Your task to perform on an android device: delete the emails in spam in the gmail app Image 0: 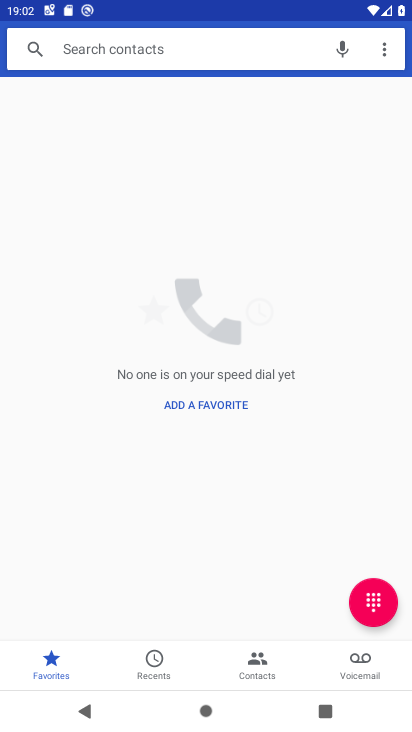
Step 0: press home button
Your task to perform on an android device: delete the emails in spam in the gmail app Image 1: 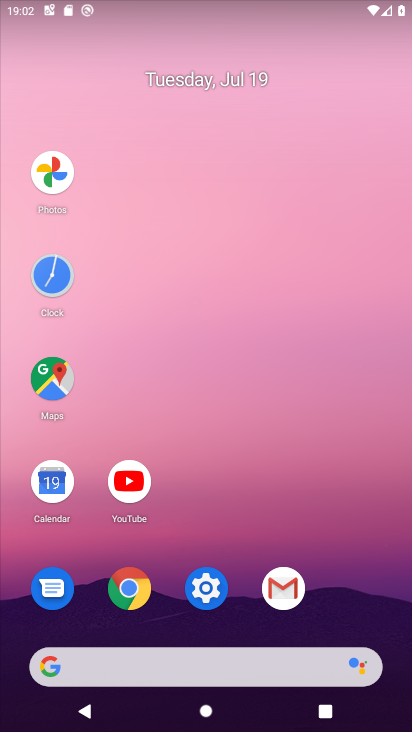
Step 1: click (281, 592)
Your task to perform on an android device: delete the emails in spam in the gmail app Image 2: 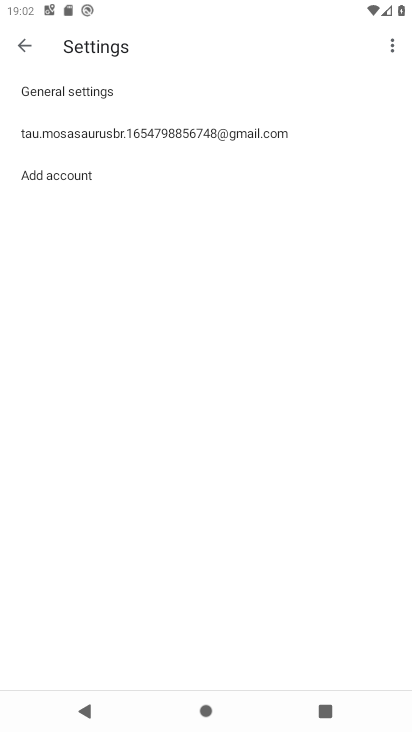
Step 2: click (23, 43)
Your task to perform on an android device: delete the emails in spam in the gmail app Image 3: 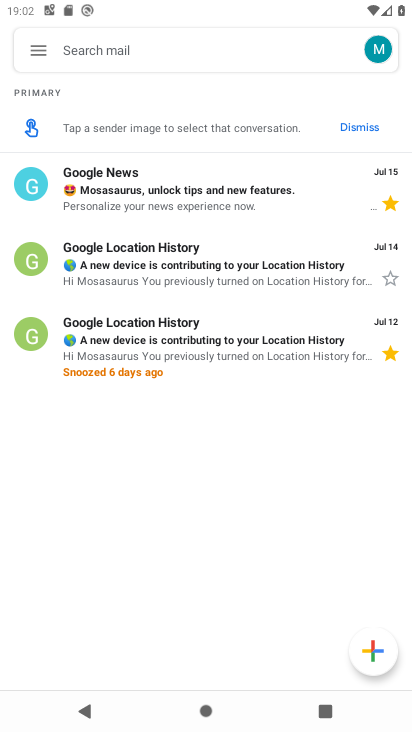
Step 3: click (32, 47)
Your task to perform on an android device: delete the emails in spam in the gmail app Image 4: 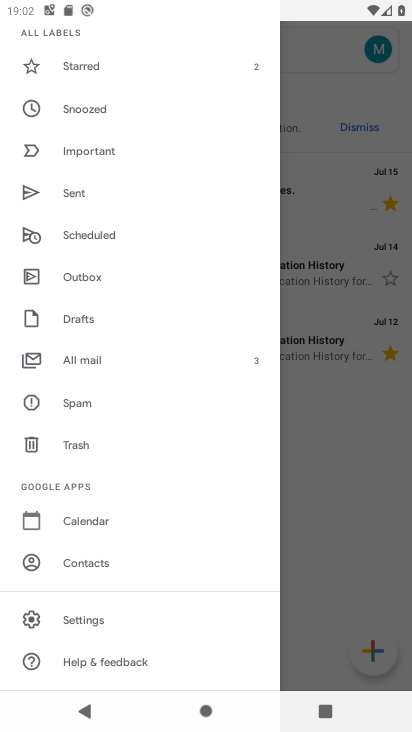
Step 4: click (75, 406)
Your task to perform on an android device: delete the emails in spam in the gmail app Image 5: 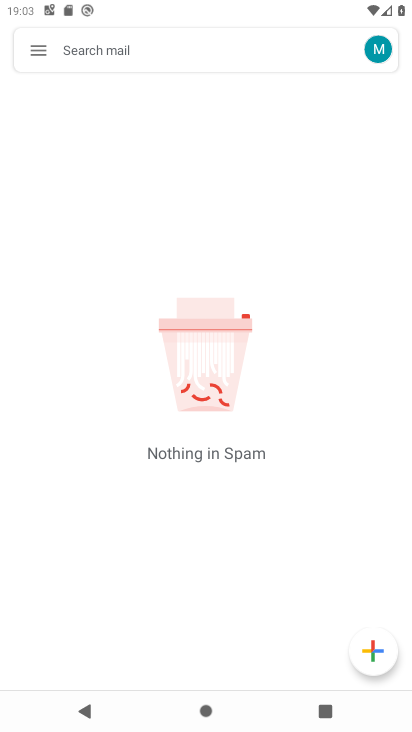
Step 5: task complete